Your task to perform on an android device: Open Google Image 0: 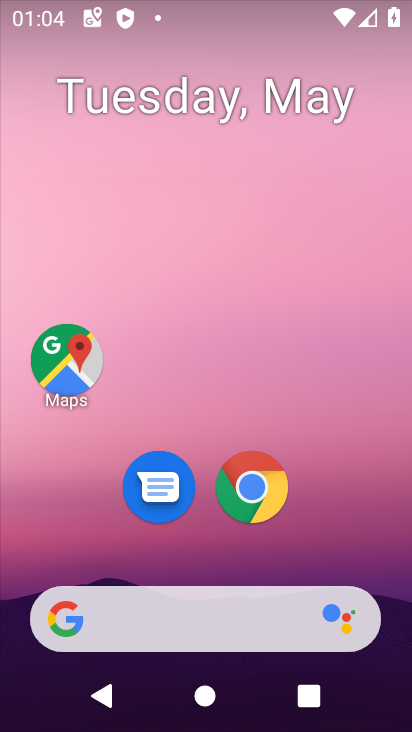
Step 0: drag from (321, 525) to (299, 61)
Your task to perform on an android device: Open Google Image 1: 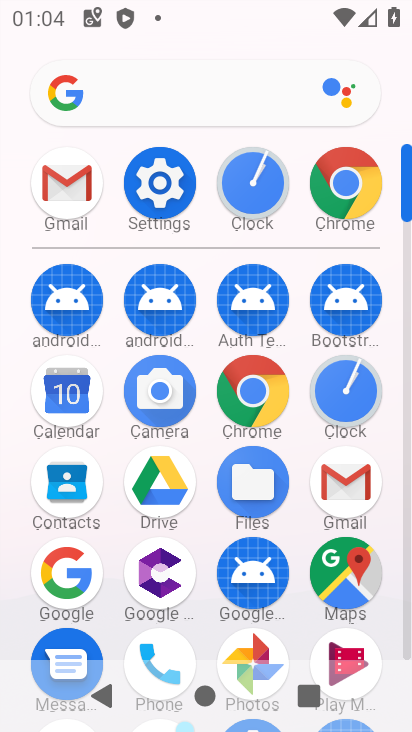
Step 1: click (54, 571)
Your task to perform on an android device: Open Google Image 2: 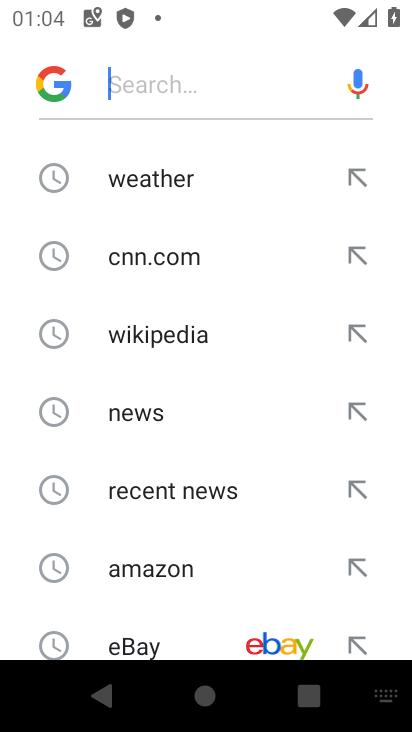
Step 2: task complete